Your task to perform on an android device: Open the map Image 0: 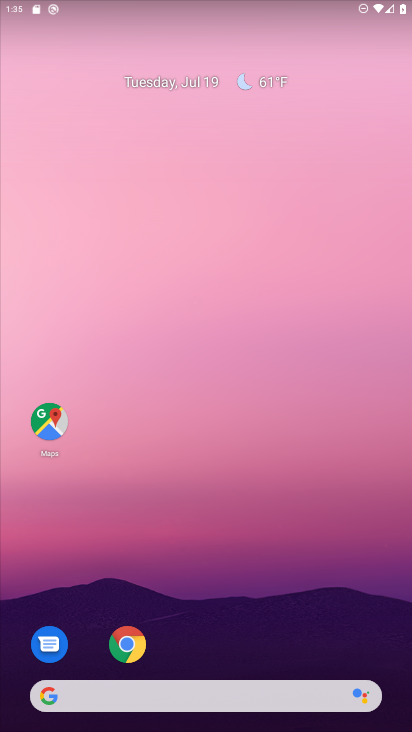
Step 0: click (38, 427)
Your task to perform on an android device: Open the map Image 1: 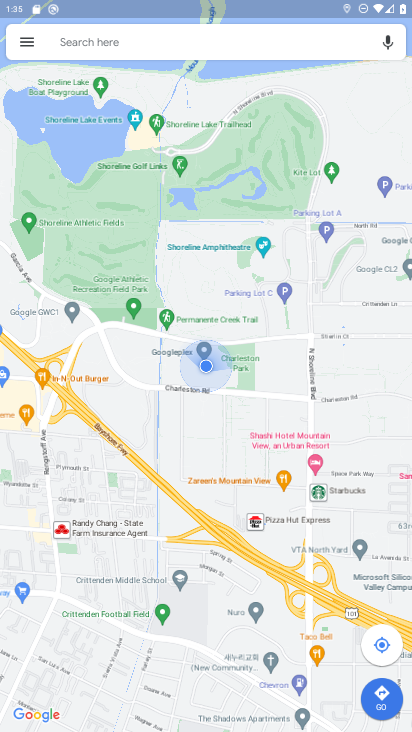
Step 1: task complete